Your task to perform on an android device: change the upload size in google photos Image 0: 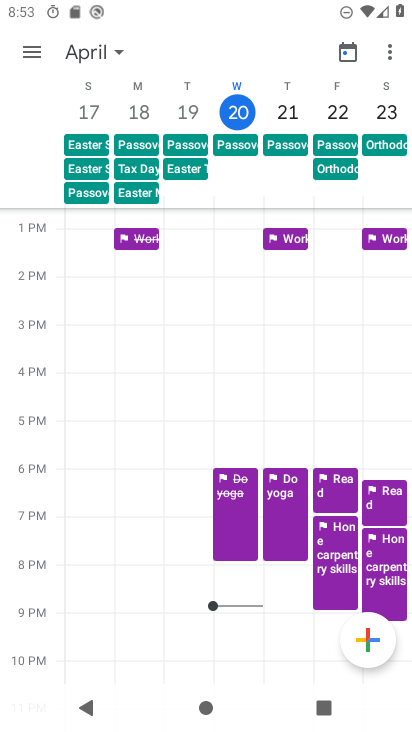
Step 0: press home button
Your task to perform on an android device: change the upload size in google photos Image 1: 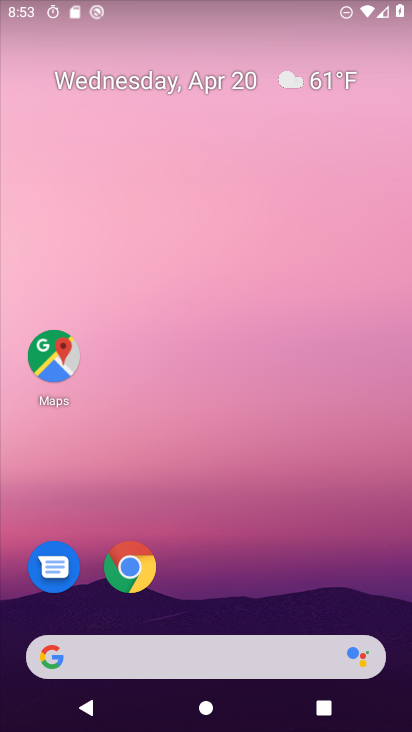
Step 1: drag from (355, 607) to (335, 0)
Your task to perform on an android device: change the upload size in google photos Image 2: 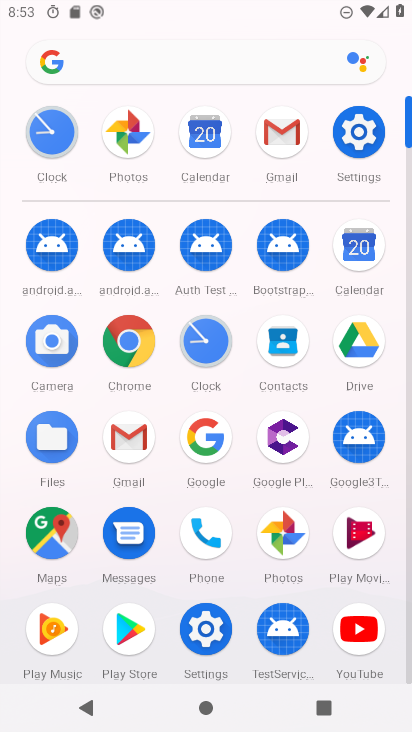
Step 2: click (284, 541)
Your task to perform on an android device: change the upload size in google photos Image 3: 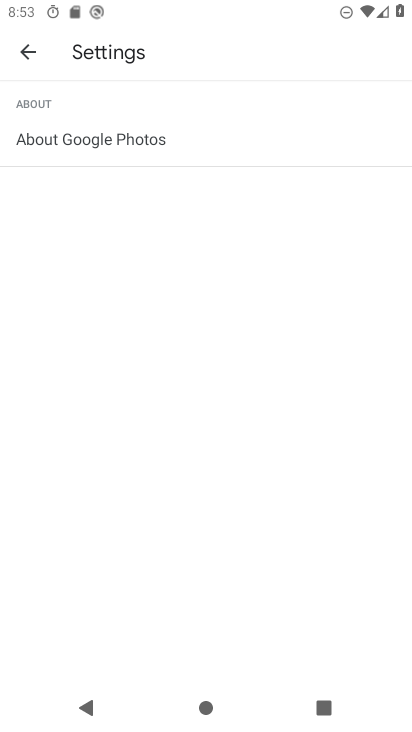
Step 3: click (25, 57)
Your task to perform on an android device: change the upload size in google photos Image 4: 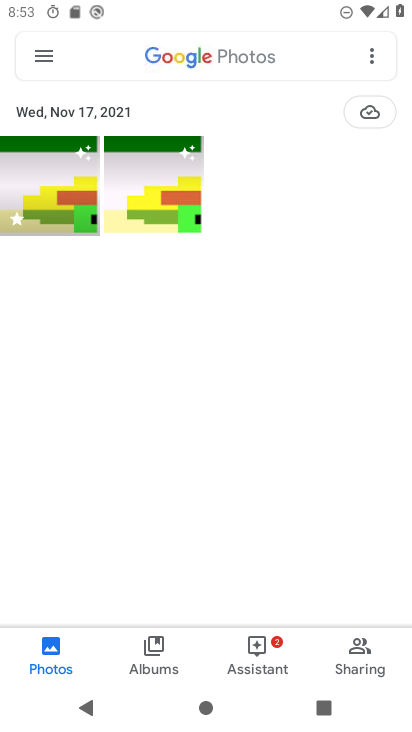
Step 4: click (37, 59)
Your task to perform on an android device: change the upload size in google photos Image 5: 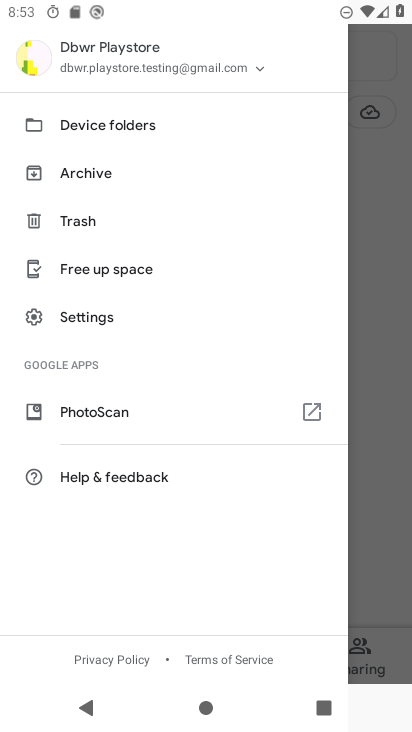
Step 5: click (78, 321)
Your task to perform on an android device: change the upload size in google photos Image 6: 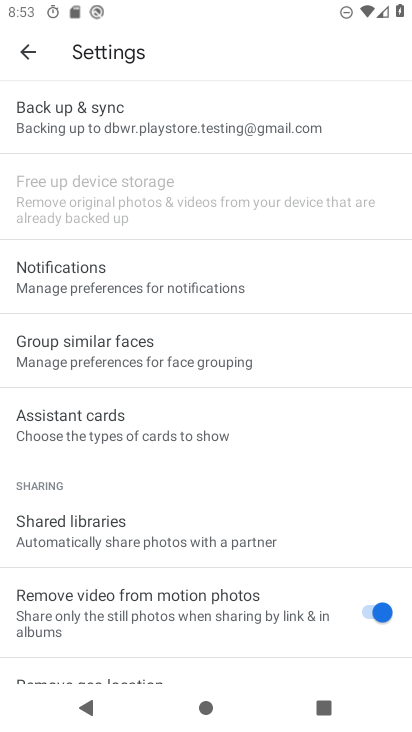
Step 6: click (49, 131)
Your task to perform on an android device: change the upload size in google photos Image 7: 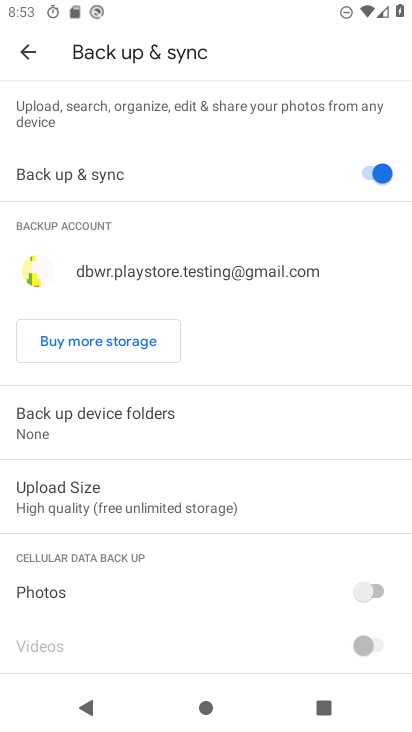
Step 7: click (84, 485)
Your task to perform on an android device: change the upload size in google photos Image 8: 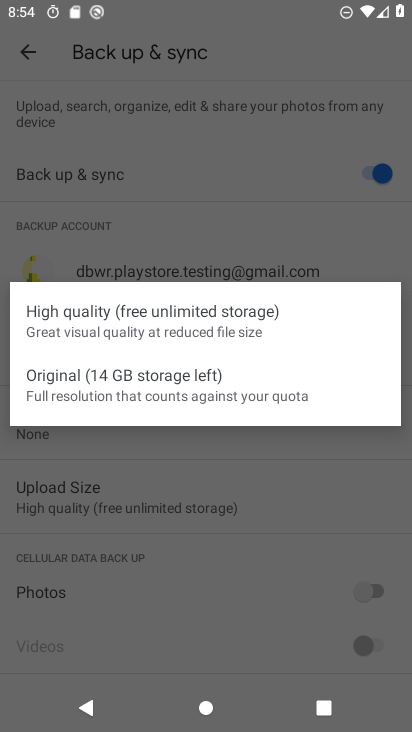
Step 8: click (84, 393)
Your task to perform on an android device: change the upload size in google photos Image 9: 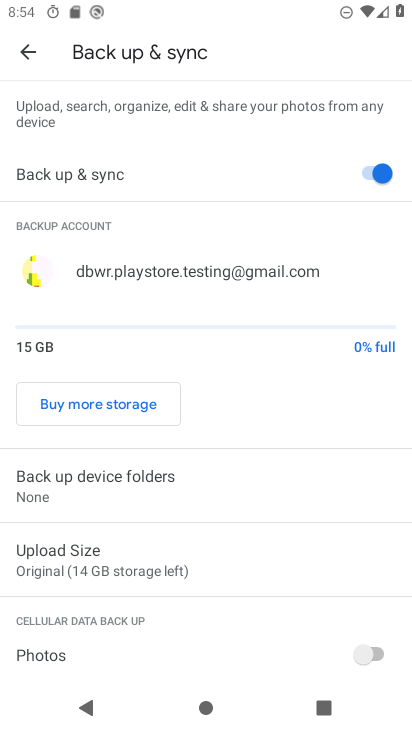
Step 9: task complete